Your task to perform on an android device: Open battery settings Image 0: 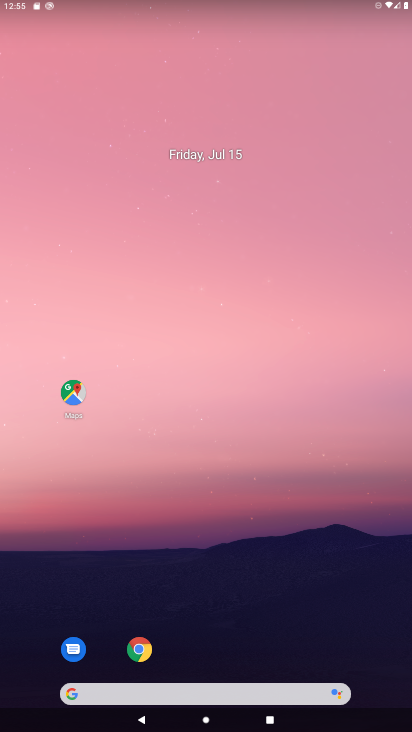
Step 0: drag from (239, 652) to (264, 126)
Your task to perform on an android device: Open battery settings Image 1: 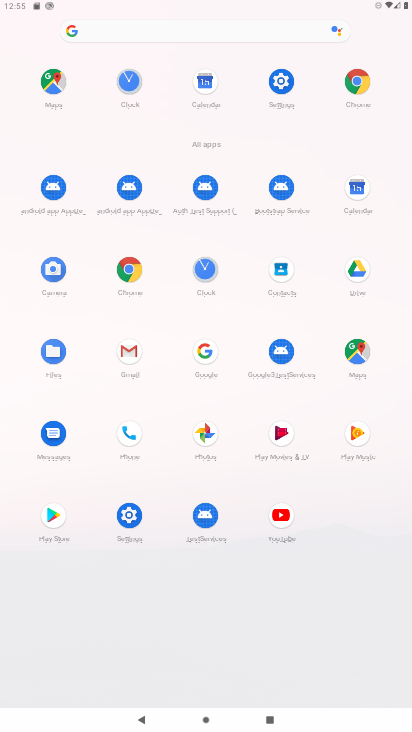
Step 1: click (281, 78)
Your task to perform on an android device: Open battery settings Image 2: 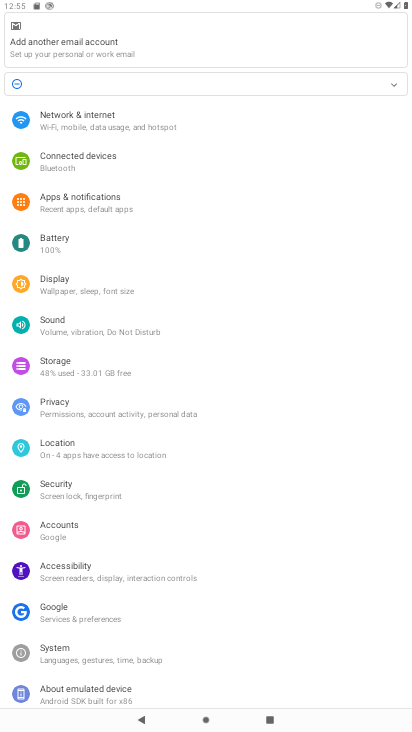
Step 2: click (62, 241)
Your task to perform on an android device: Open battery settings Image 3: 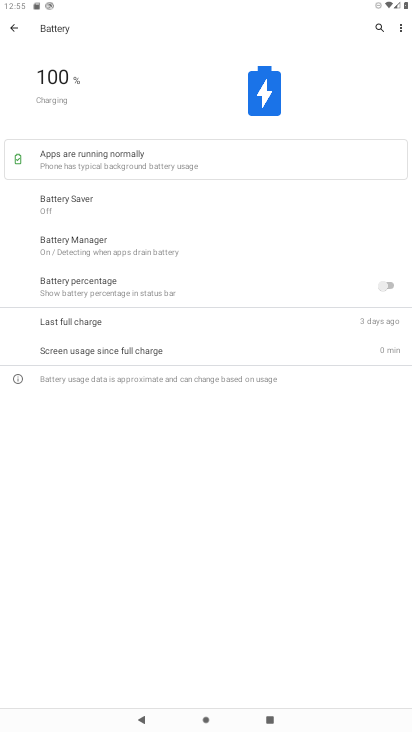
Step 3: task complete